Your task to perform on an android device: Open the calendar app, open the side menu, and click the "Day" option Image 0: 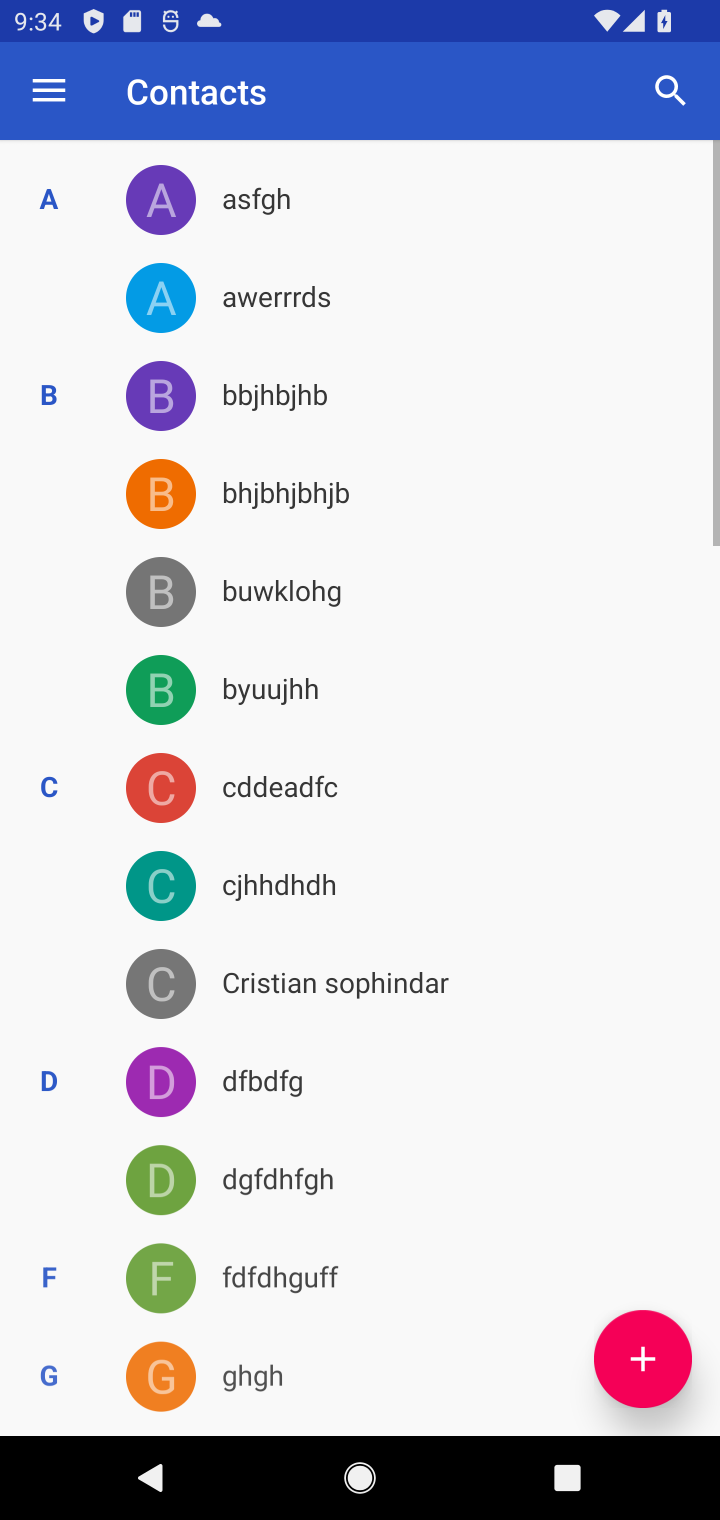
Step 0: press home button
Your task to perform on an android device: Open the calendar app, open the side menu, and click the "Day" option Image 1: 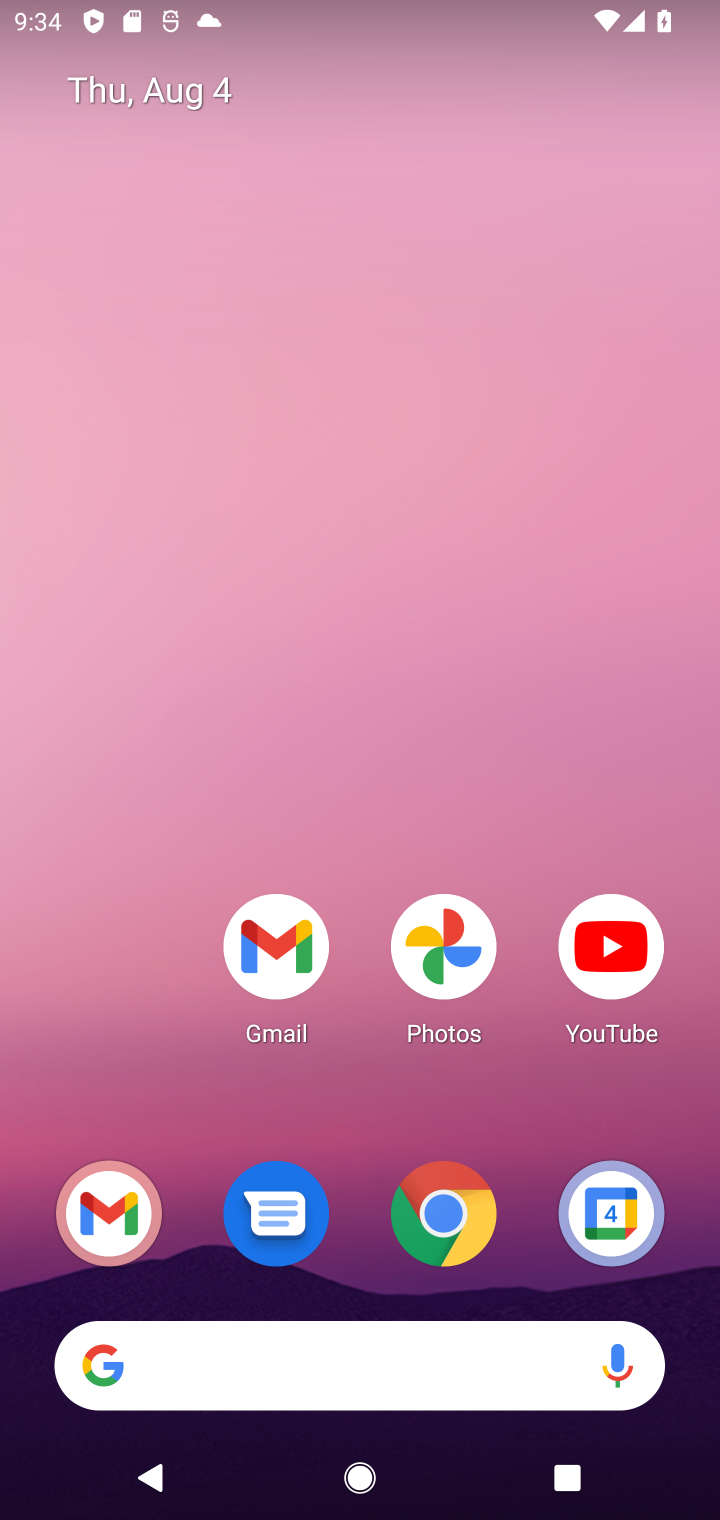
Step 1: click (337, 1111)
Your task to perform on an android device: Open the calendar app, open the side menu, and click the "Day" option Image 2: 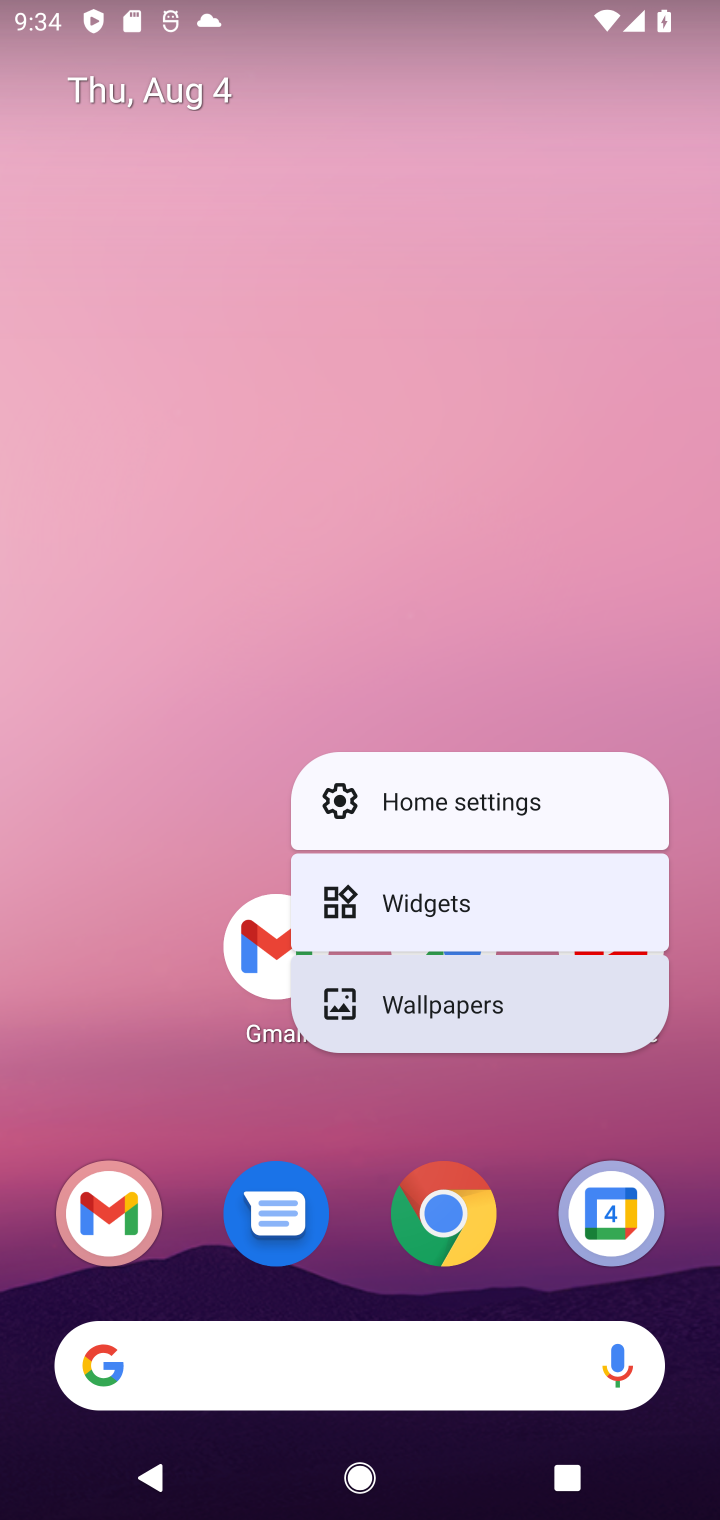
Step 2: click (206, 461)
Your task to perform on an android device: Open the calendar app, open the side menu, and click the "Day" option Image 3: 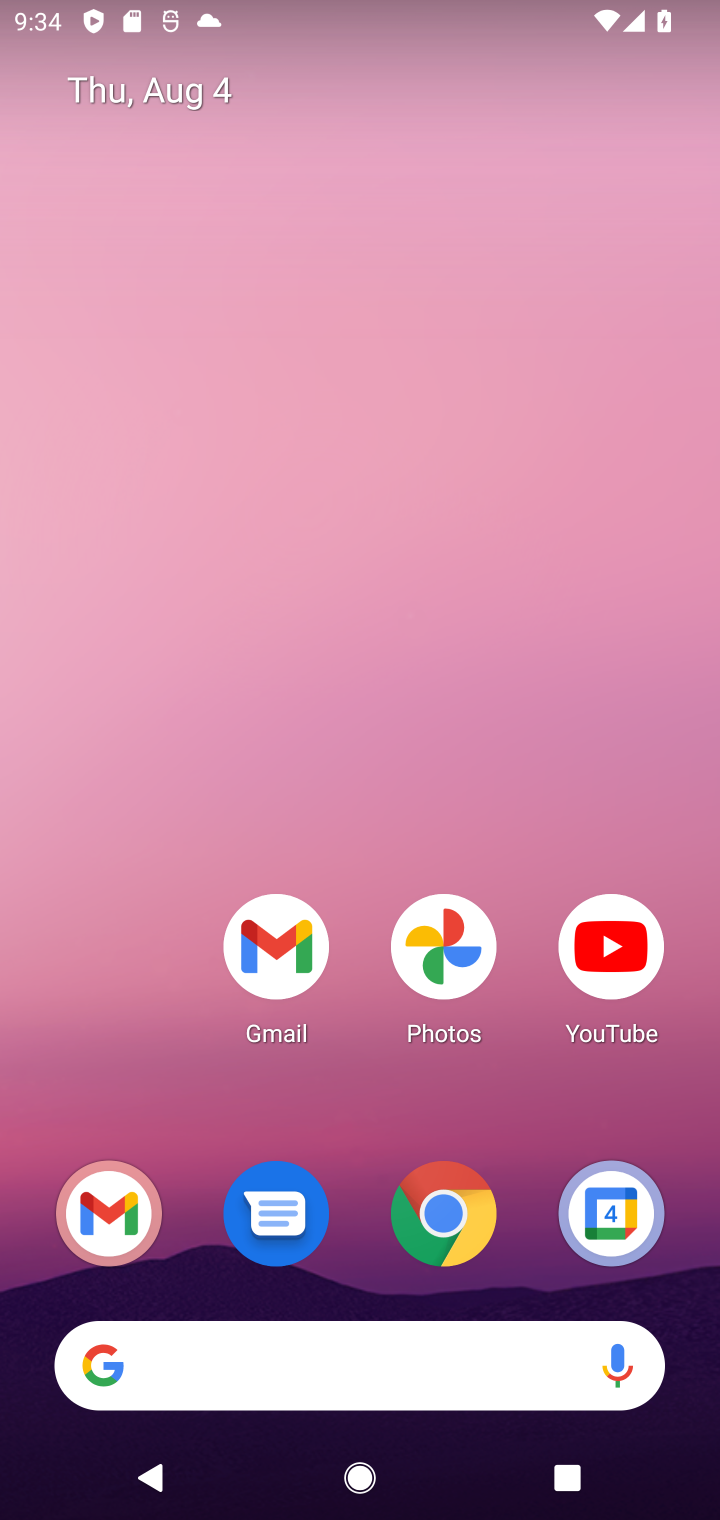
Step 3: click (604, 1204)
Your task to perform on an android device: Open the calendar app, open the side menu, and click the "Day" option Image 4: 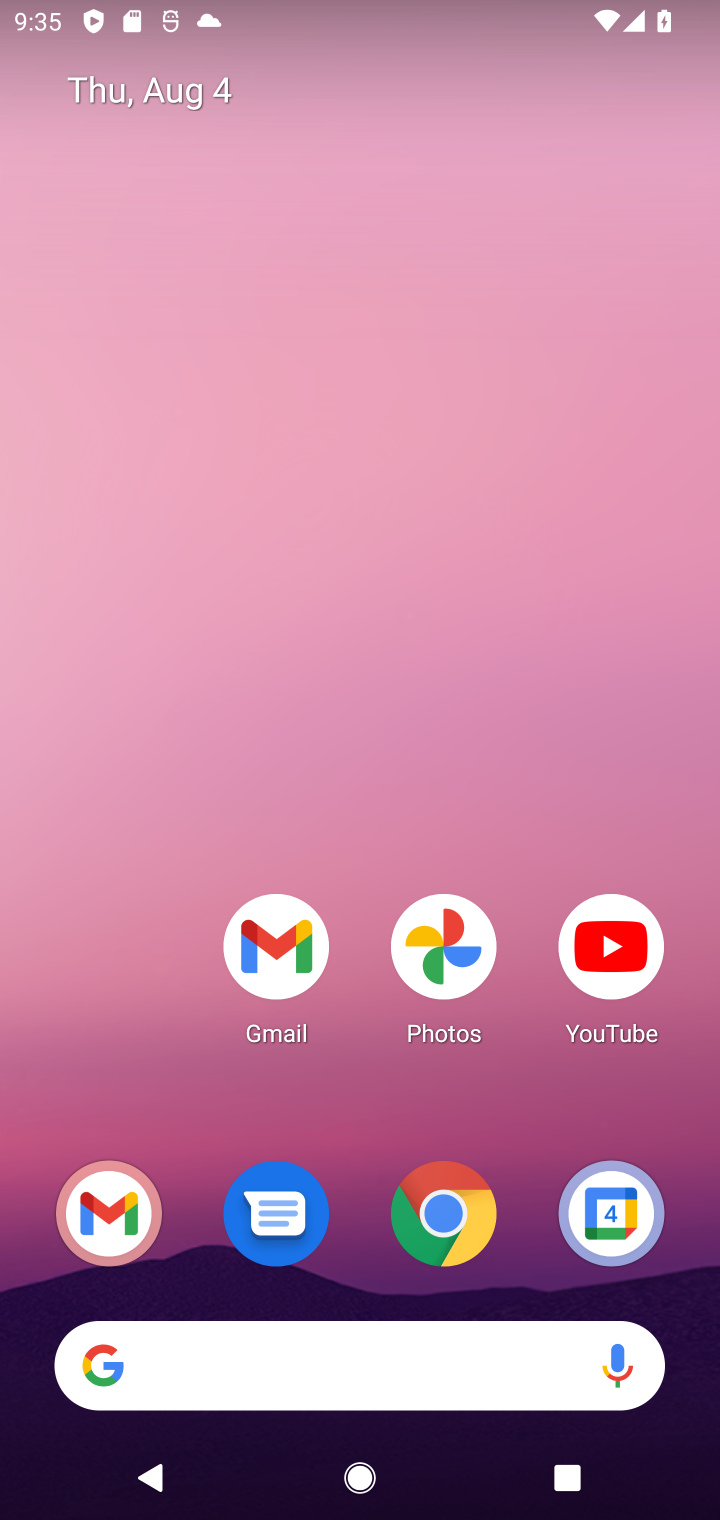
Step 4: click (612, 1203)
Your task to perform on an android device: Open the calendar app, open the side menu, and click the "Day" option Image 5: 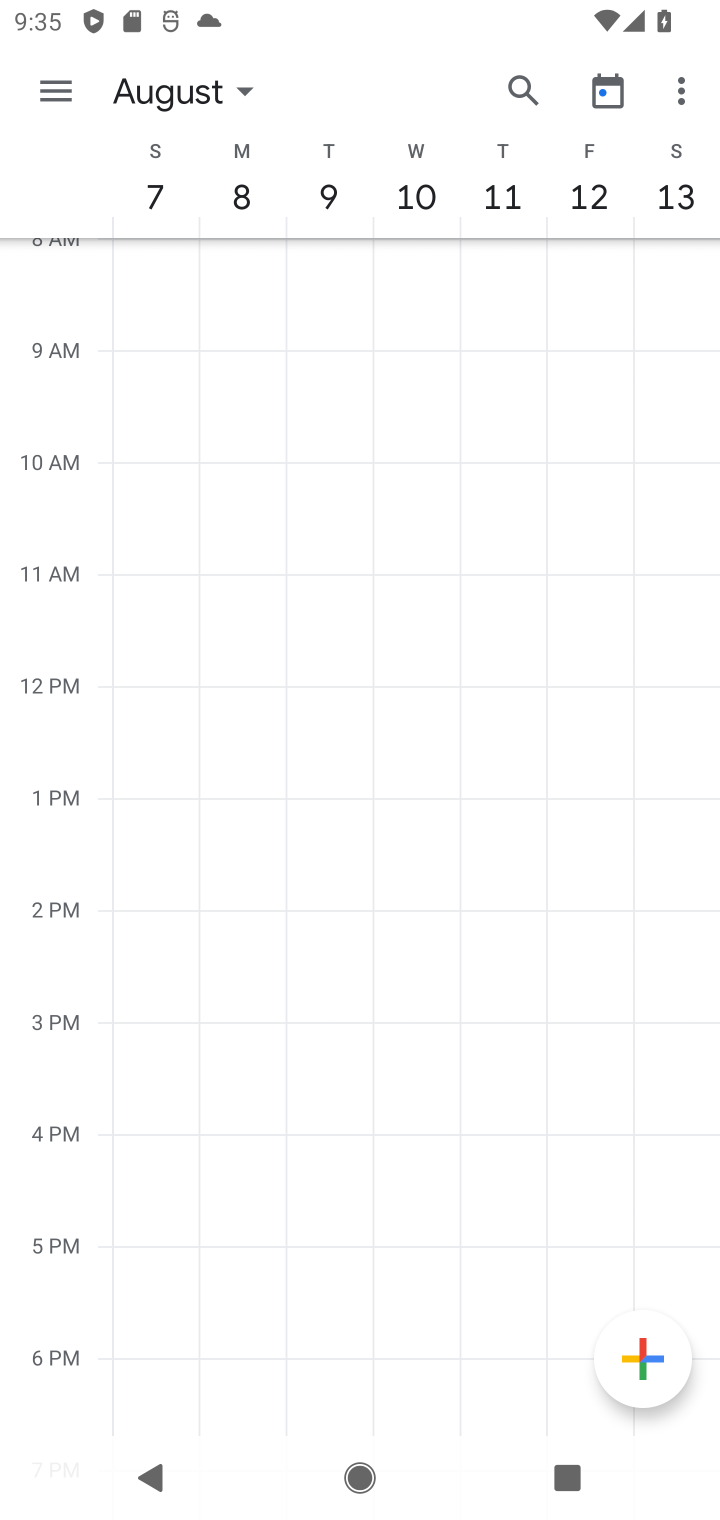
Step 5: click (54, 76)
Your task to perform on an android device: Open the calendar app, open the side menu, and click the "Day" option Image 6: 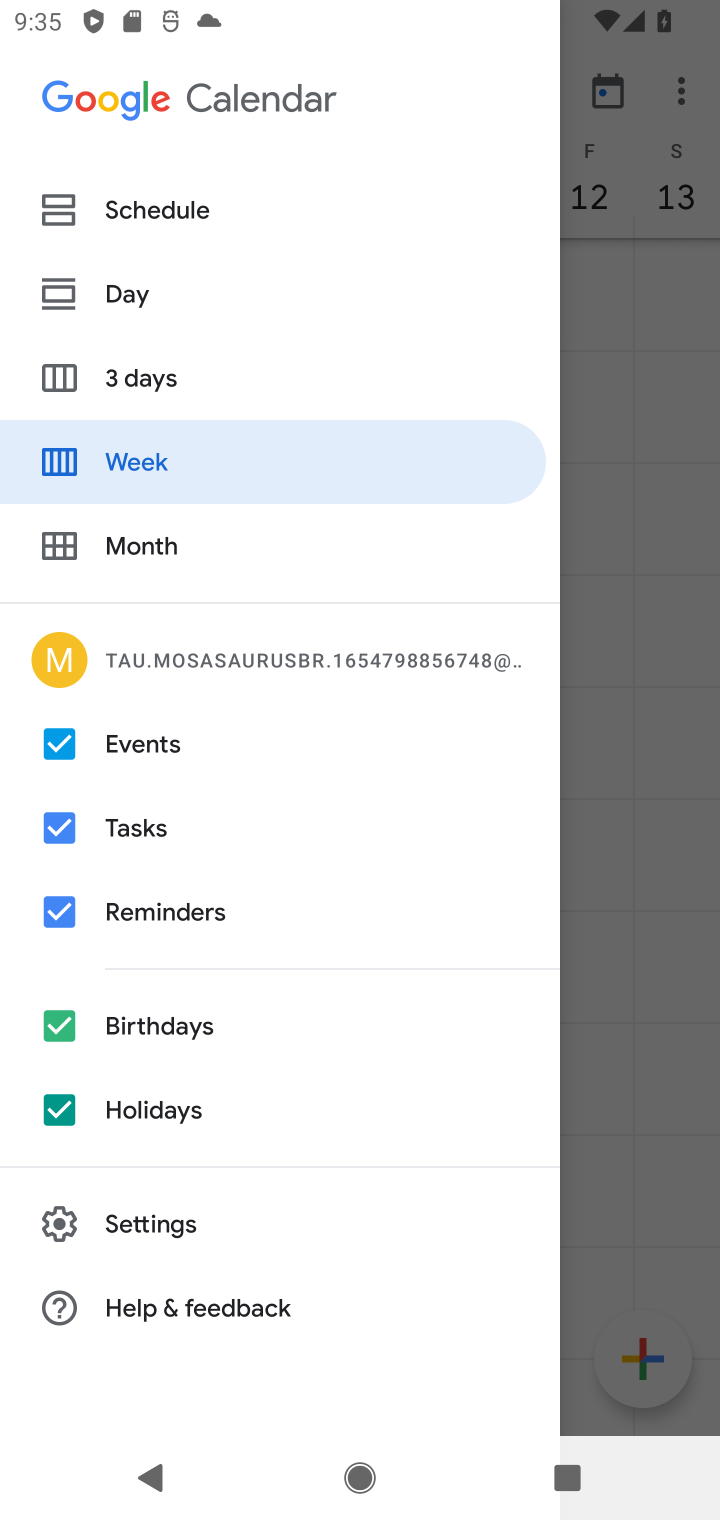
Step 6: click (109, 282)
Your task to perform on an android device: Open the calendar app, open the side menu, and click the "Day" option Image 7: 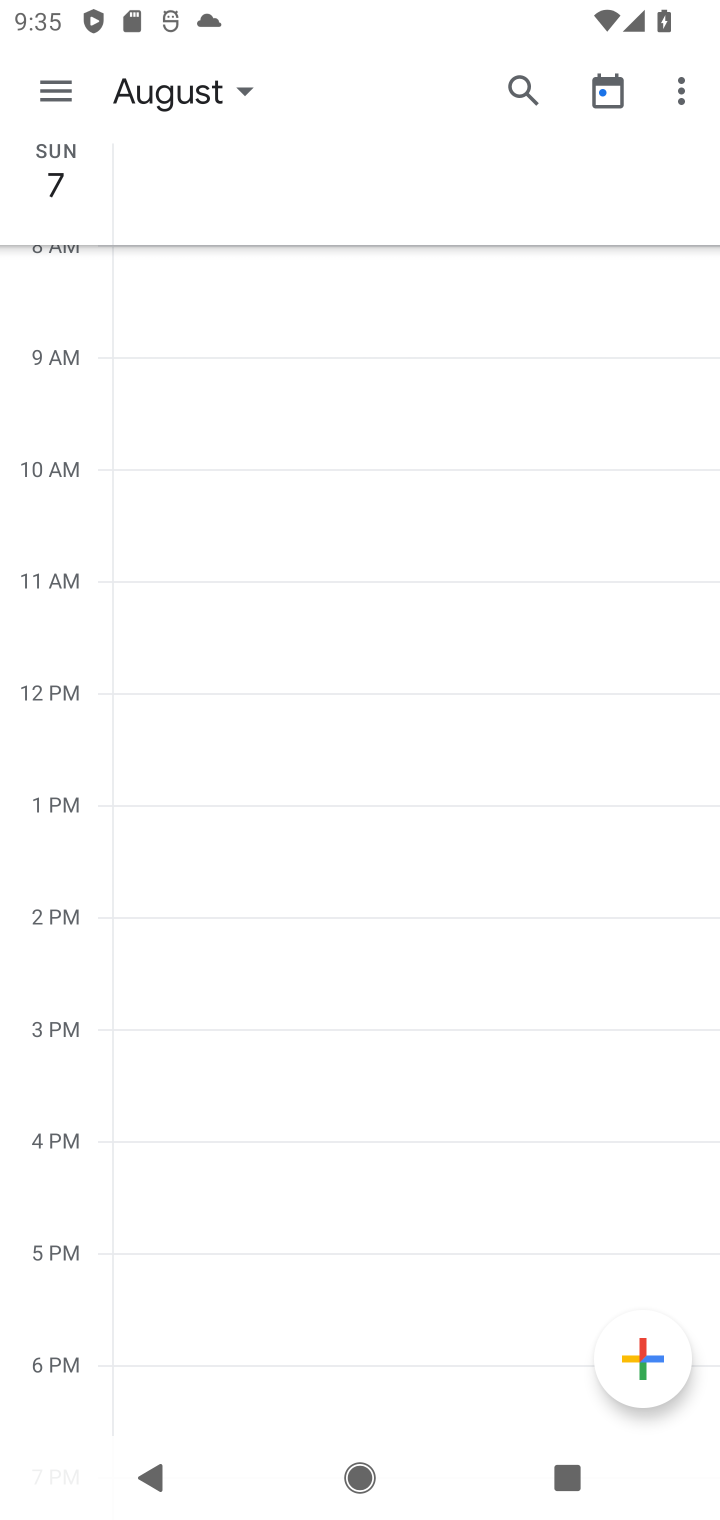
Step 7: task complete